Your task to perform on an android device: Open the calendar app, open the side menu, and click the "Day" option Image 0: 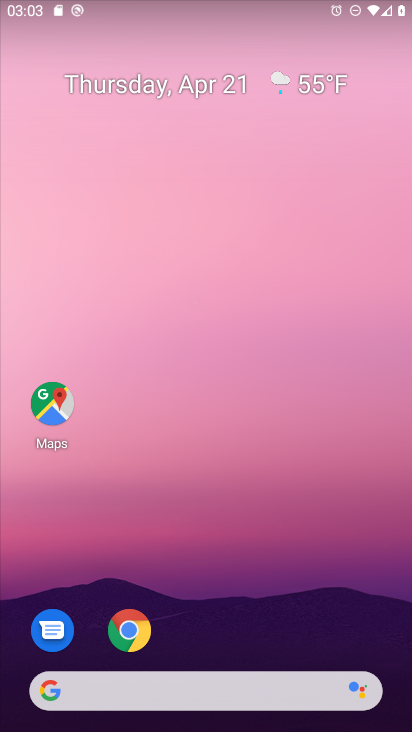
Step 0: drag from (322, 618) to (326, 64)
Your task to perform on an android device: Open the calendar app, open the side menu, and click the "Day" option Image 1: 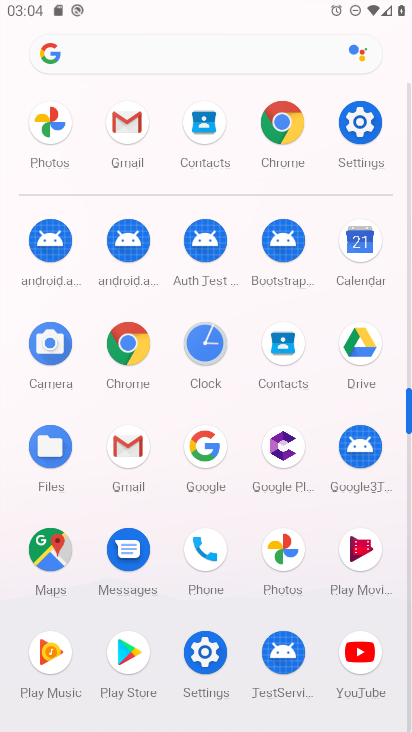
Step 1: click (347, 154)
Your task to perform on an android device: Open the calendar app, open the side menu, and click the "Day" option Image 2: 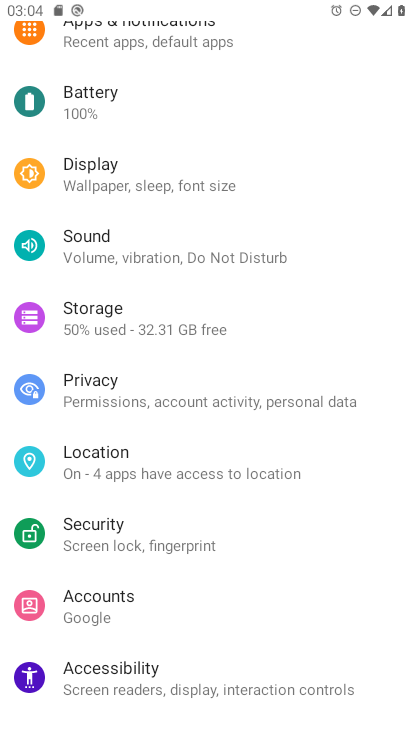
Step 2: press home button
Your task to perform on an android device: Open the calendar app, open the side menu, and click the "Day" option Image 3: 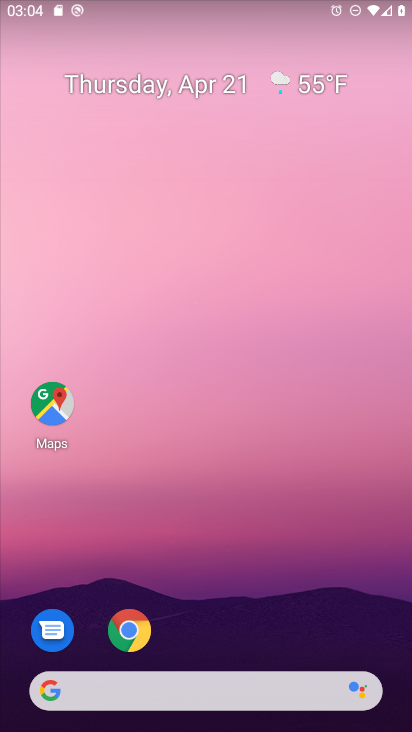
Step 3: drag from (284, 549) to (277, 147)
Your task to perform on an android device: Open the calendar app, open the side menu, and click the "Day" option Image 4: 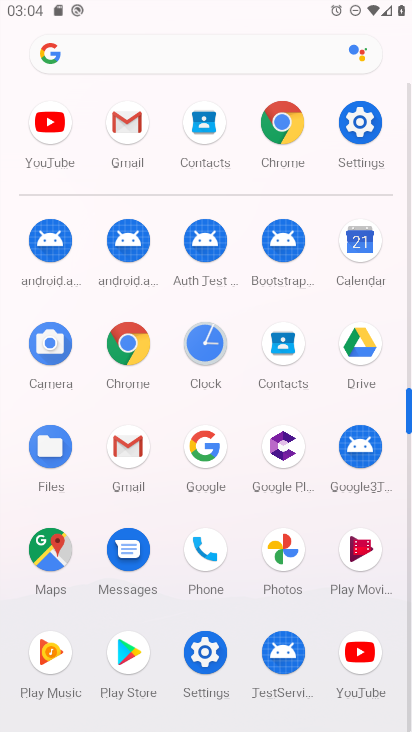
Step 4: click (350, 234)
Your task to perform on an android device: Open the calendar app, open the side menu, and click the "Day" option Image 5: 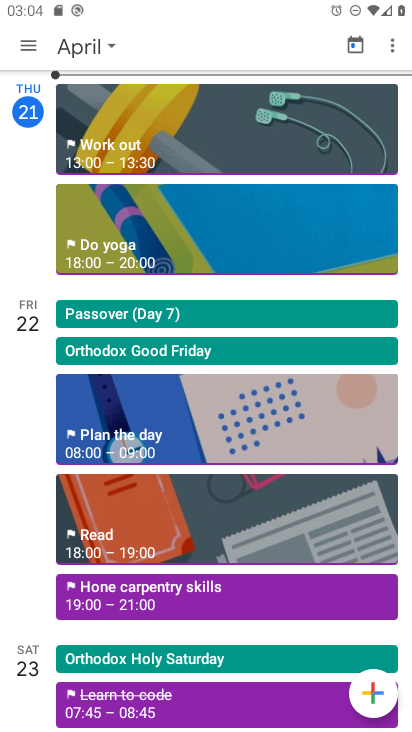
Step 5: click (12, 52)
Your task to perform on an android device: Open the calendar app, open the side menu, and click the "Day" option Image 6: 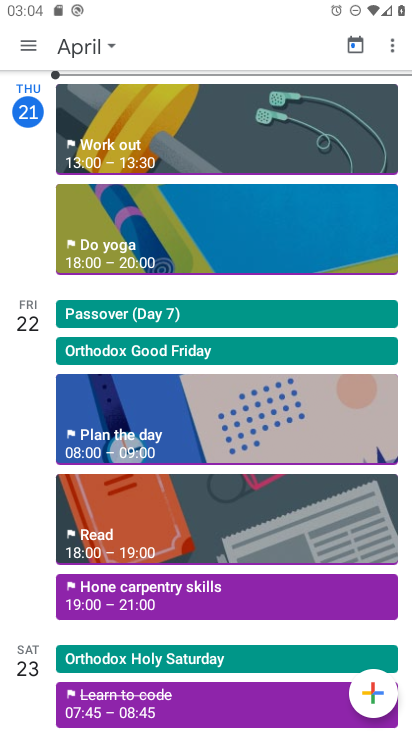
Step 6: click (21, 50)
Your task to perform on an android device: Open the calendar app, open the side menu, and click the "Day" option Image 7: 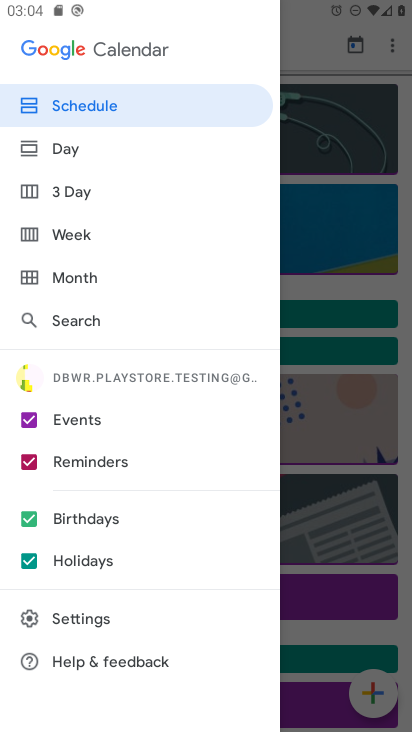
Step 7: click (69, 142)
Your task to perform on an android device: Open the calendar app, open the side menu, and click the "Day" option Image 8: 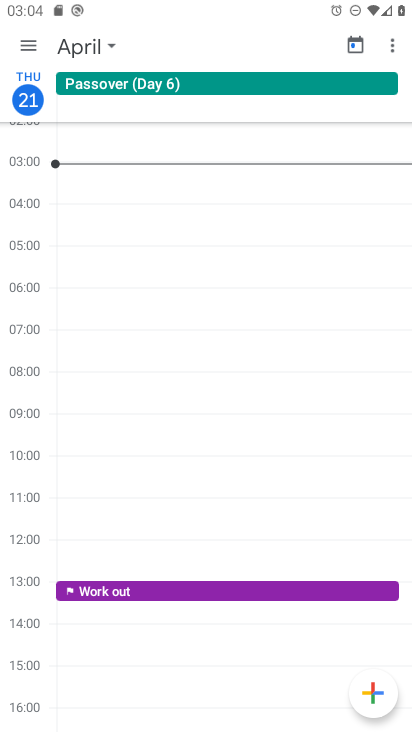
Step 8: task complete